Your task to perform on an android device: Clear all items from cart on amazon.com. Image 0: 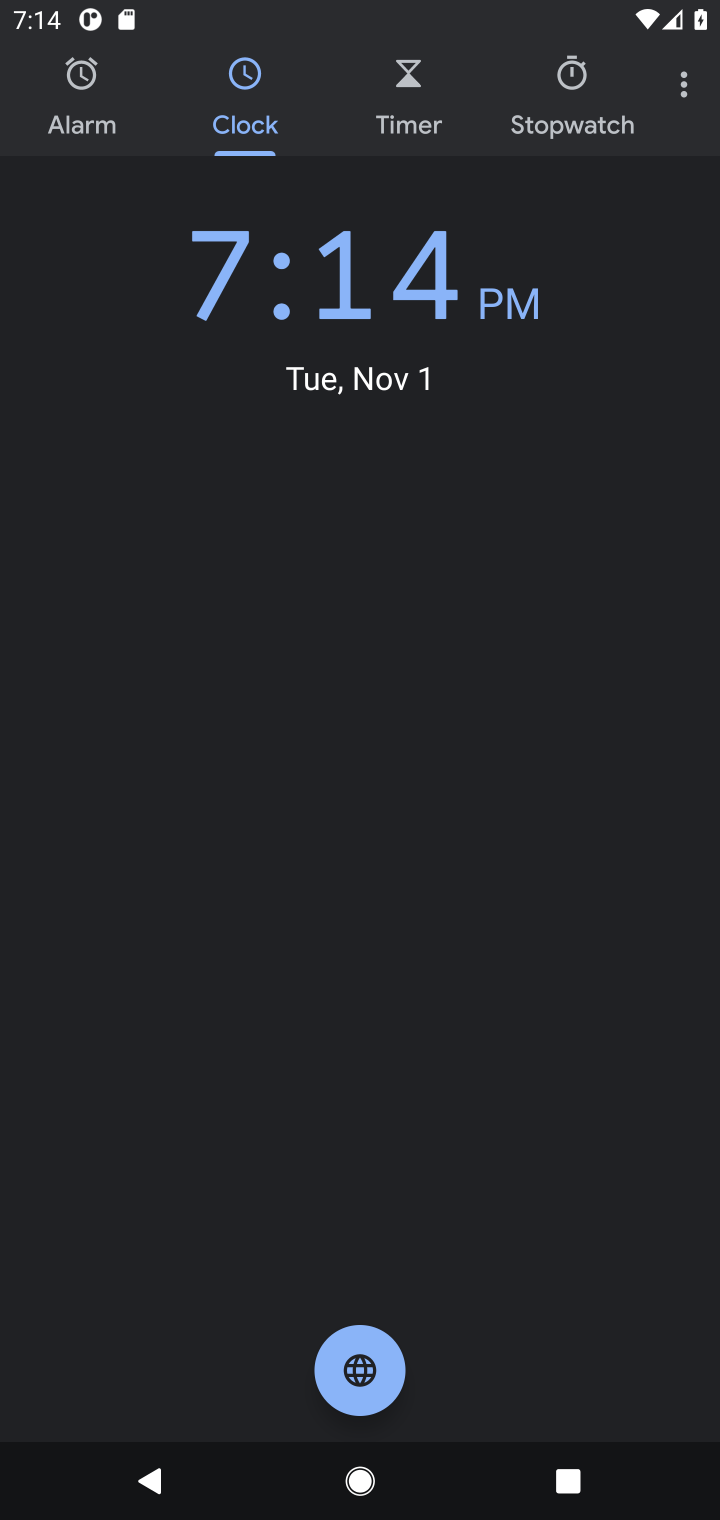
Step 0: press home button
Your task to perform on an android device: Clear all items from cart on amazon.com. Image 1: 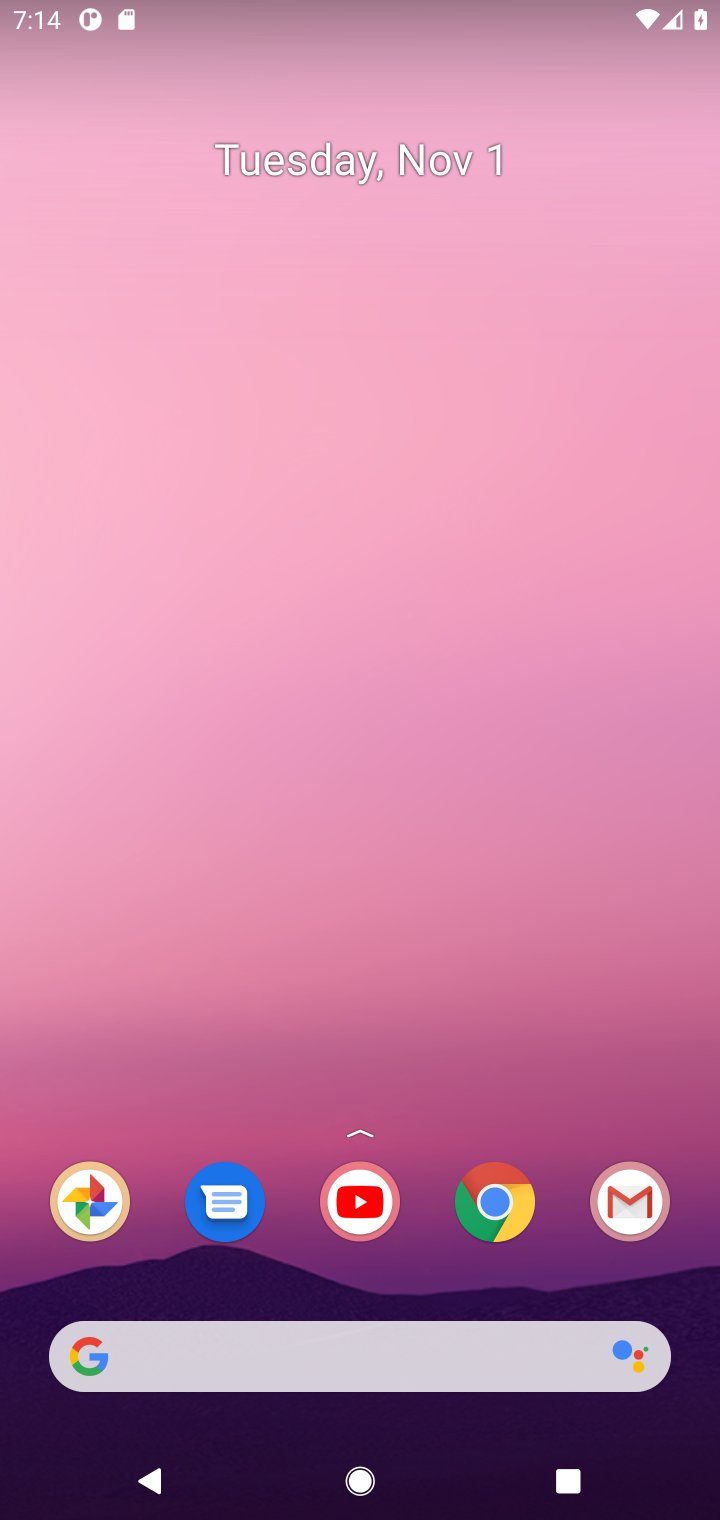
Step 1: drag from (447, 1407) to (532, 91)
Your task to perform on an android device: Clear all items from cart on amazon.com. Image 2: 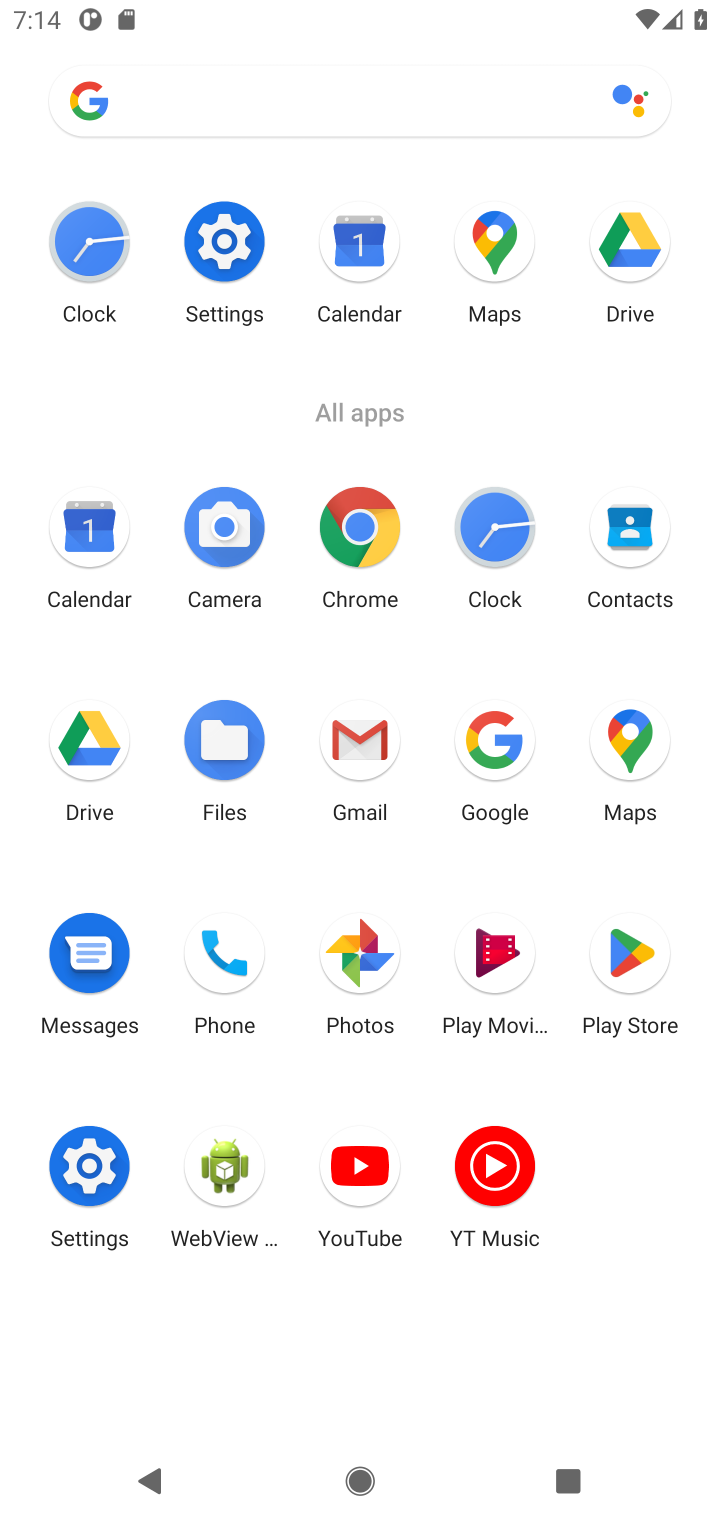
Step 2: click (353, 512)
Your task to perform on an android device: Clear all items from cart on amazon.com. Image 3: 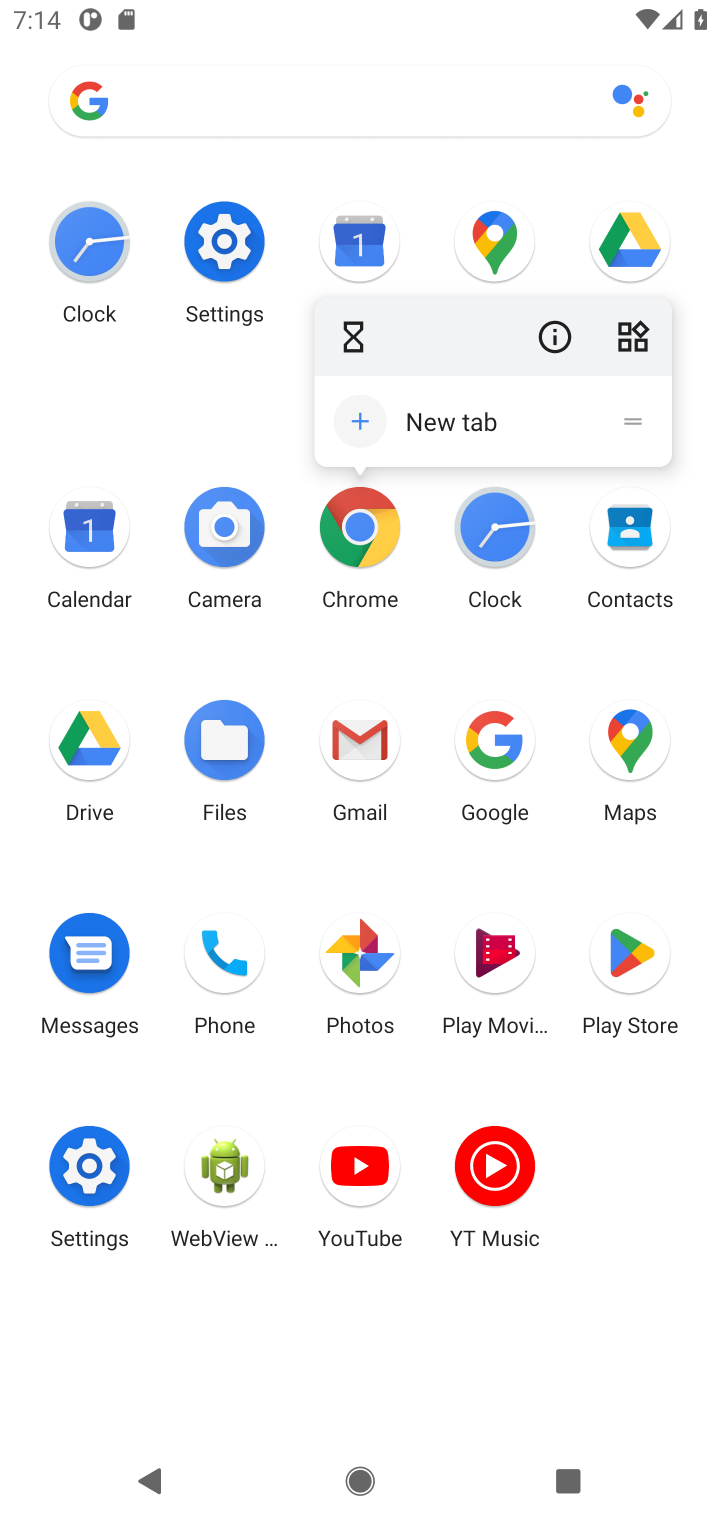
Step 3: click (350, 523)
Your task to perform on an android device: Clear all items from cart on amazon.com. Image 4: 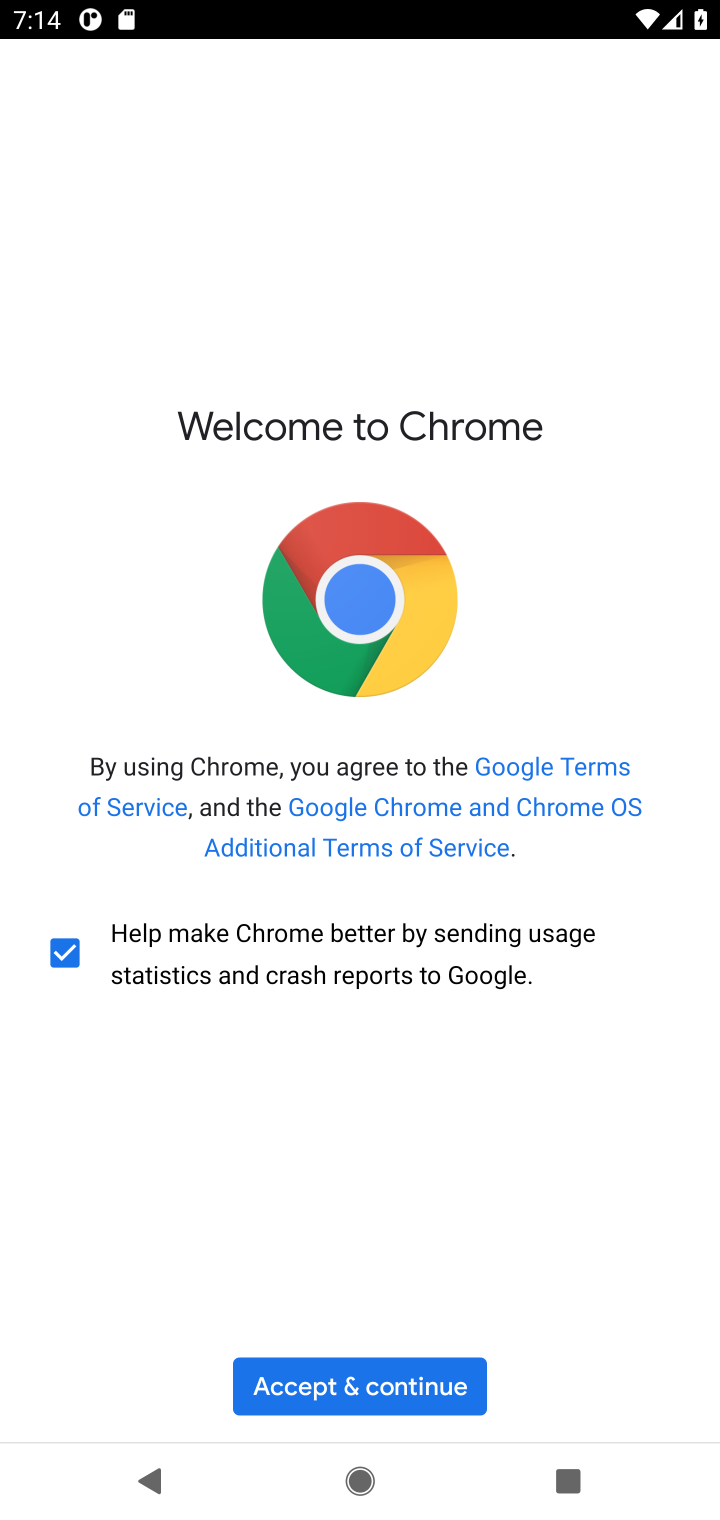
Step 4: click (447, 1392)
Your task to perform on an android device: Clear all items from cart on amazon.com. Image 5: 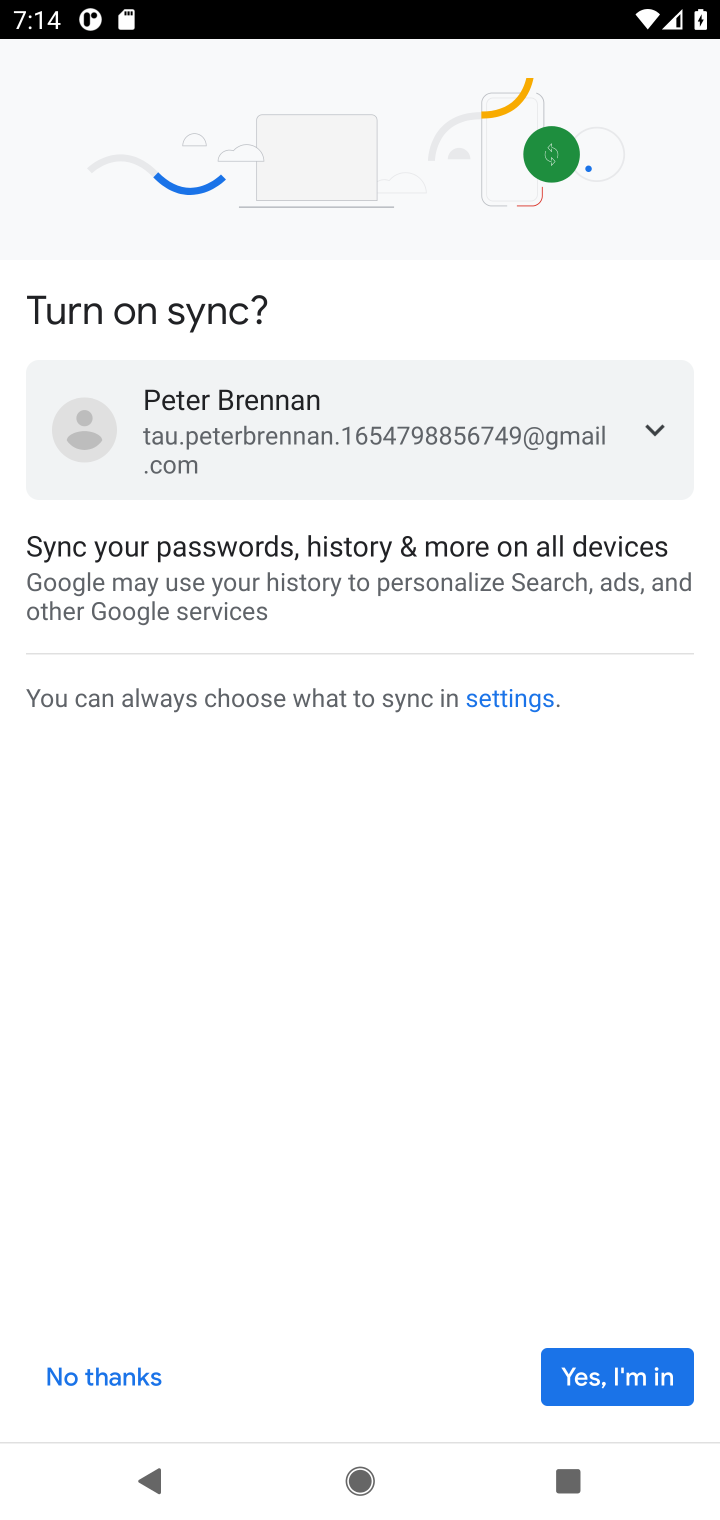
Step 5: click (586, 1373)
Your task to perform on an android device: Clear all items from cart on amazon.com. Image 6: 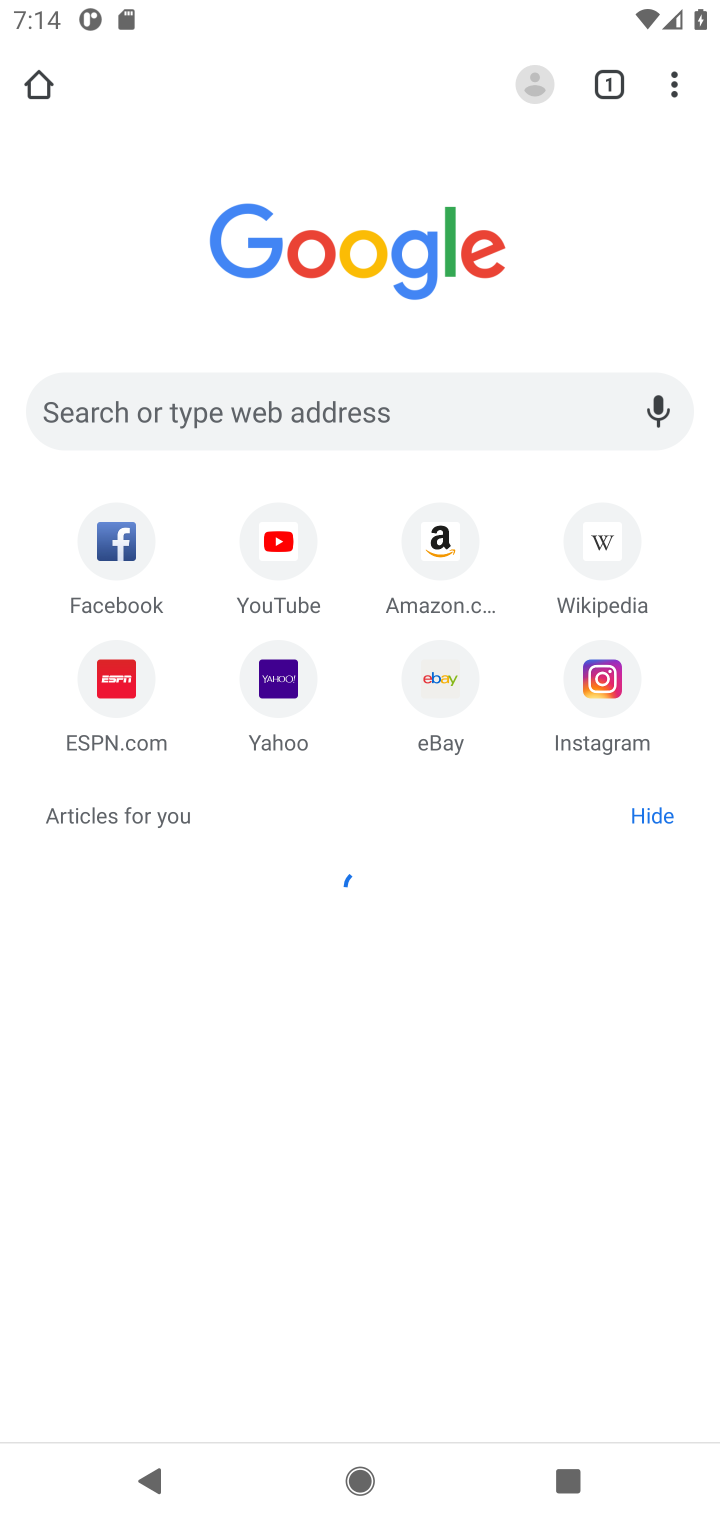
Step 6: click (334, 395)
Your task to perform on an android device: Clear all items from cart on amazon.com. Image 7: 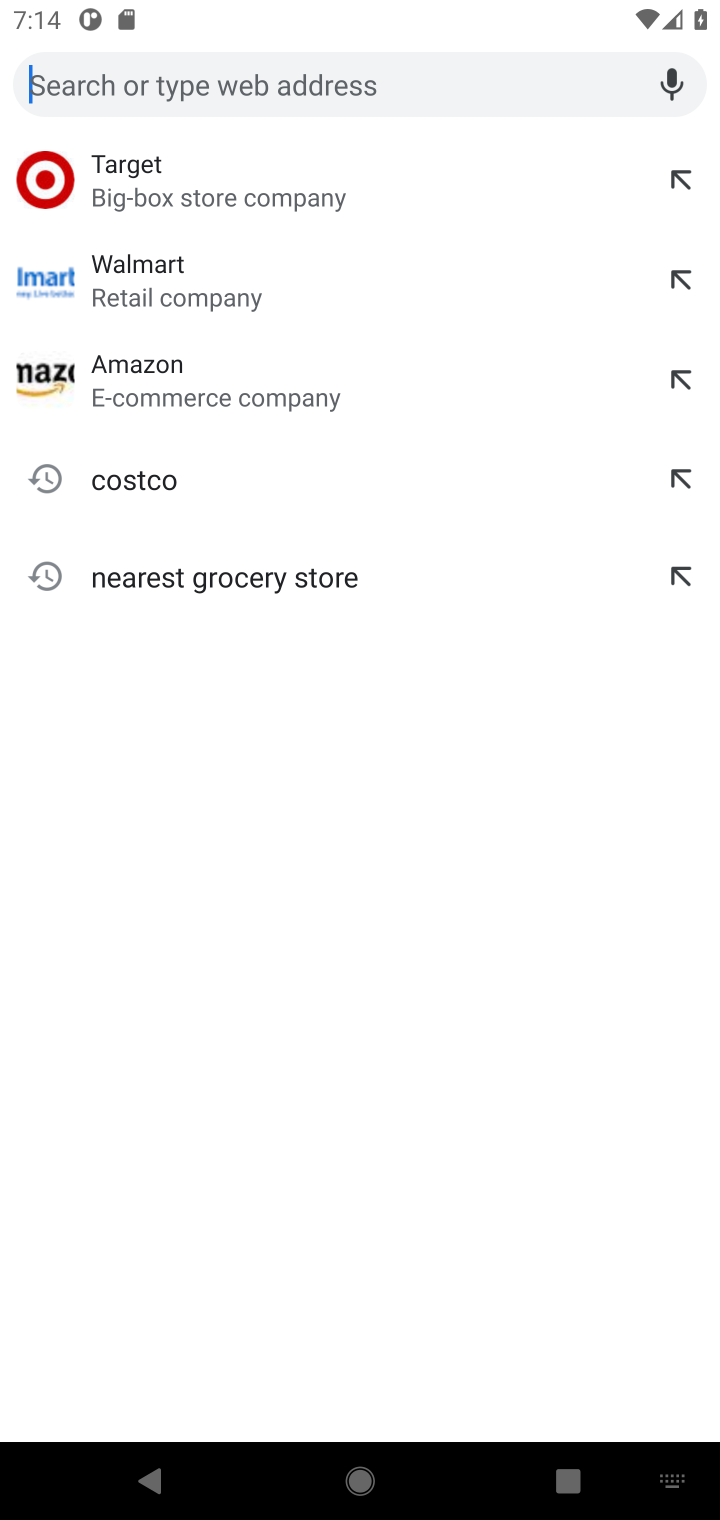
Step 7: type "amazon.com"
Your task to perform on an android device: Clear all items from cart on amazon.com. Image 8: 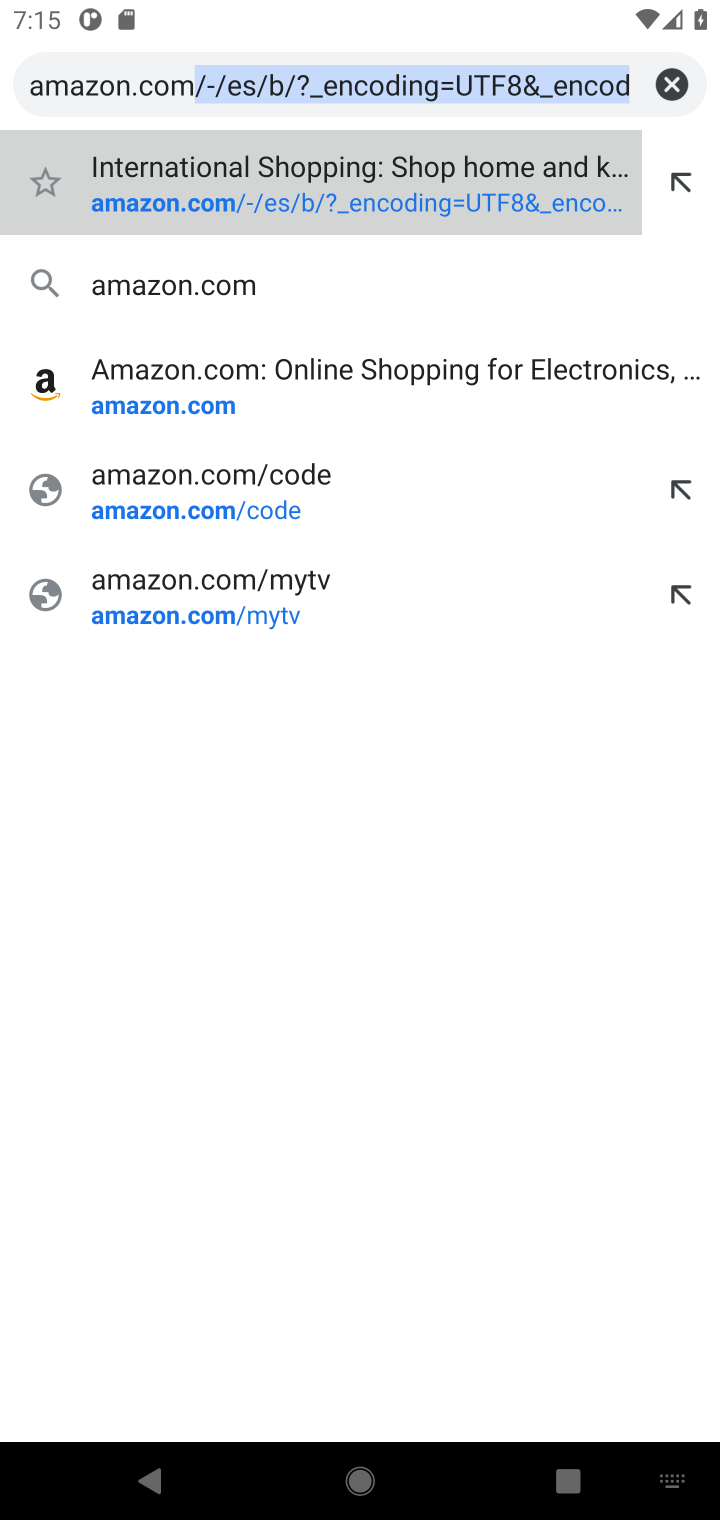
Step 8: click (138, 196)
Your task to perform on an android device: Clear all items from cart on amazon.com. Image 9: 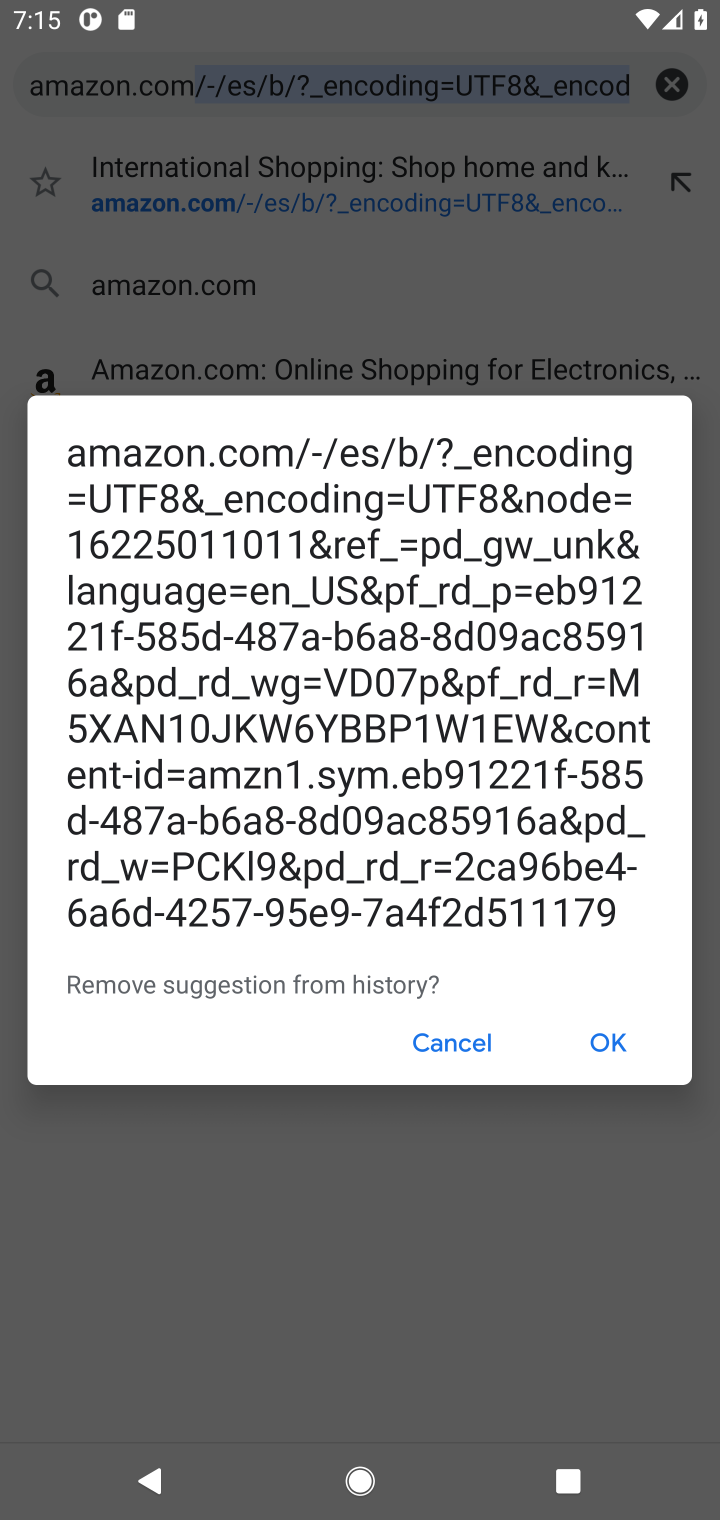
Step 9: click (612, 1044)
Your task to perform on an android device: Clear all items from cart on amazon.com. Image 10: 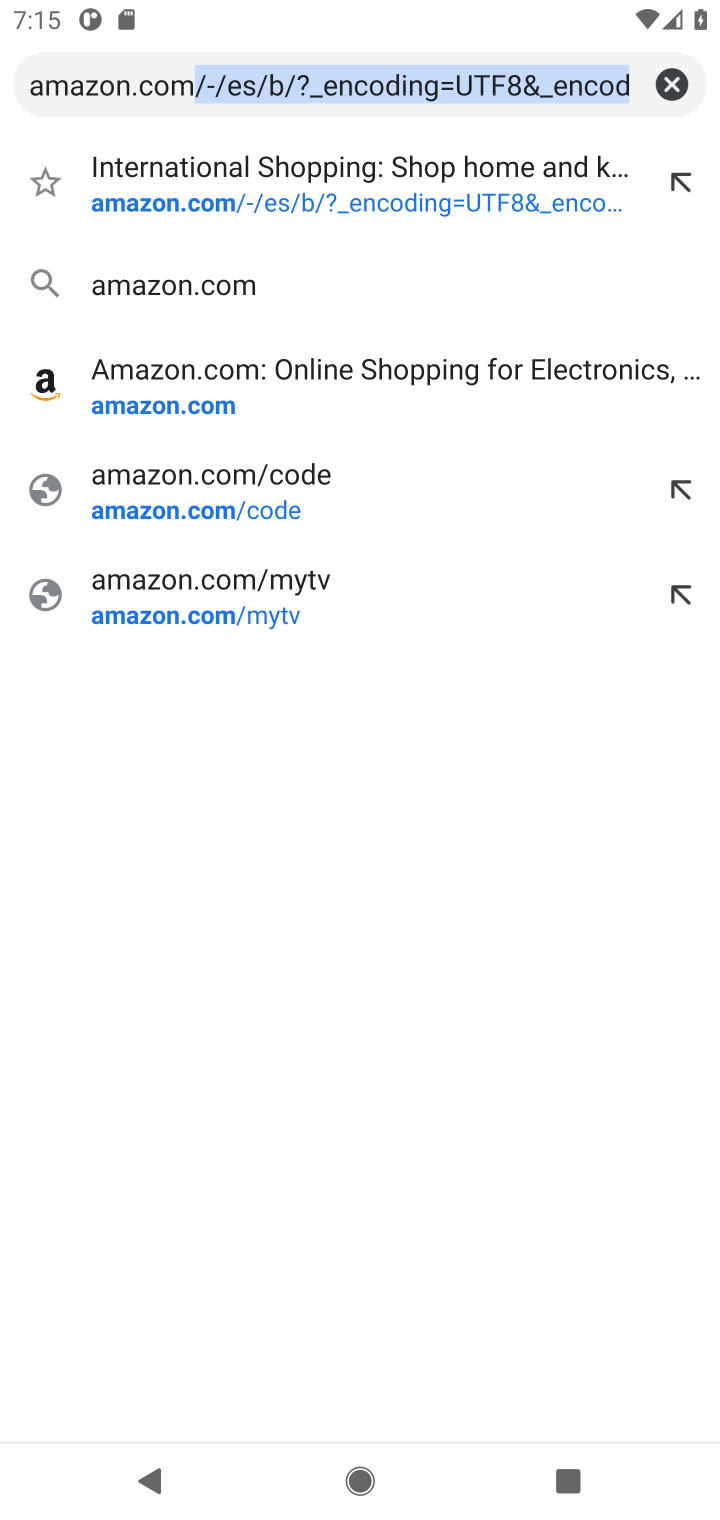
Step 10: click (606, 1209)
Your task to perform on an android device: Clear all items from cart on amazon.com. Image 11: 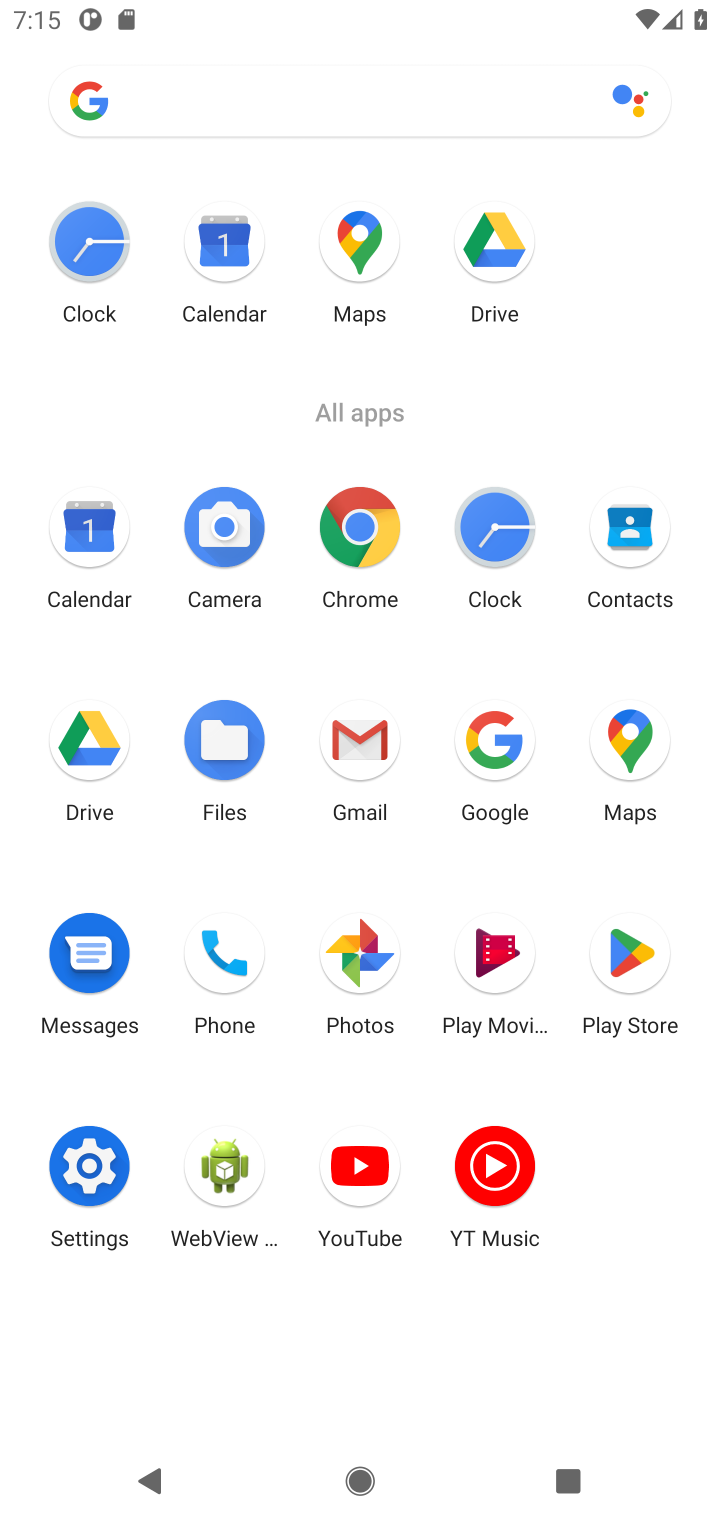
Step 11: click (356, 535)
Your task to perform on an android device: Clear all items from cart on amazon.com. Image 12: 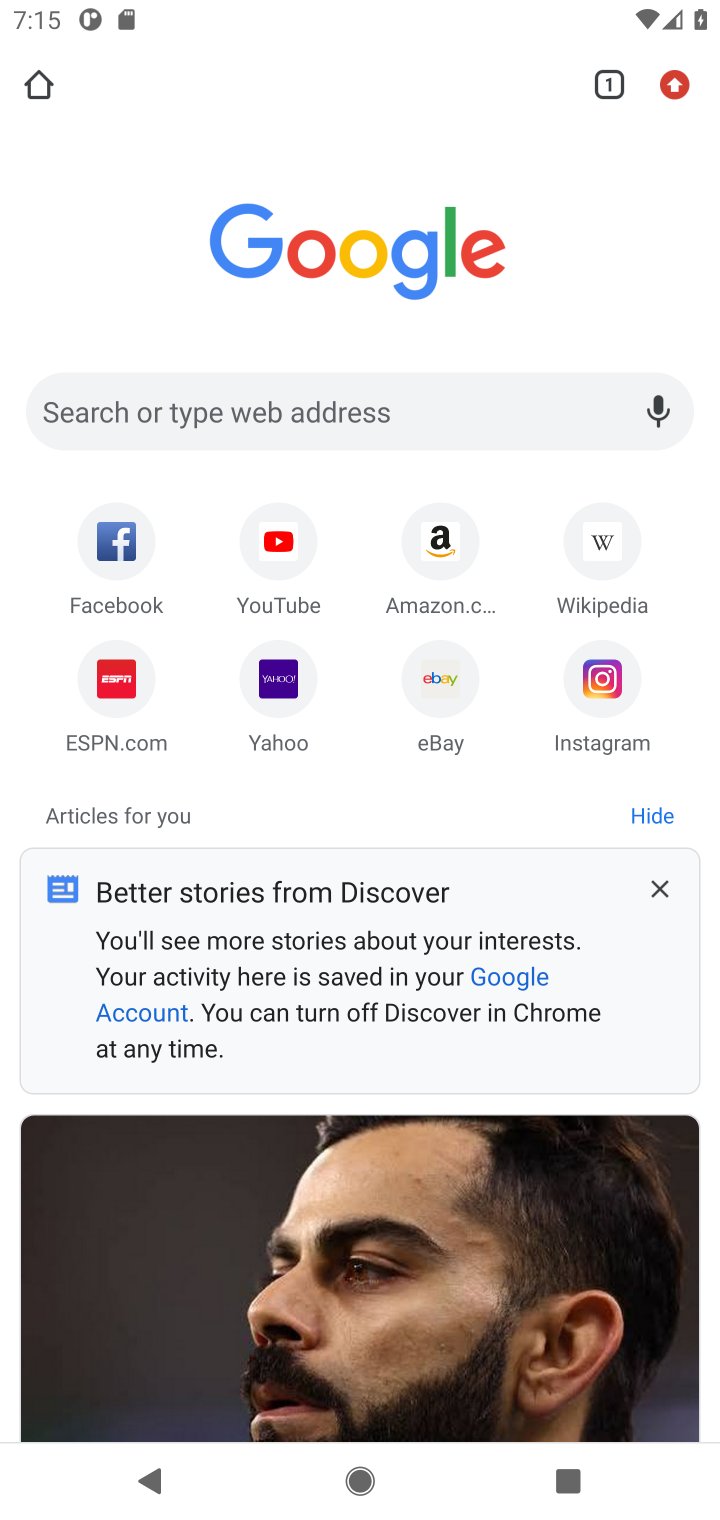
Step 12: click (371, 402)
Your task to perform on an android device: Clear all items from cart on amazon.com. Image 13: 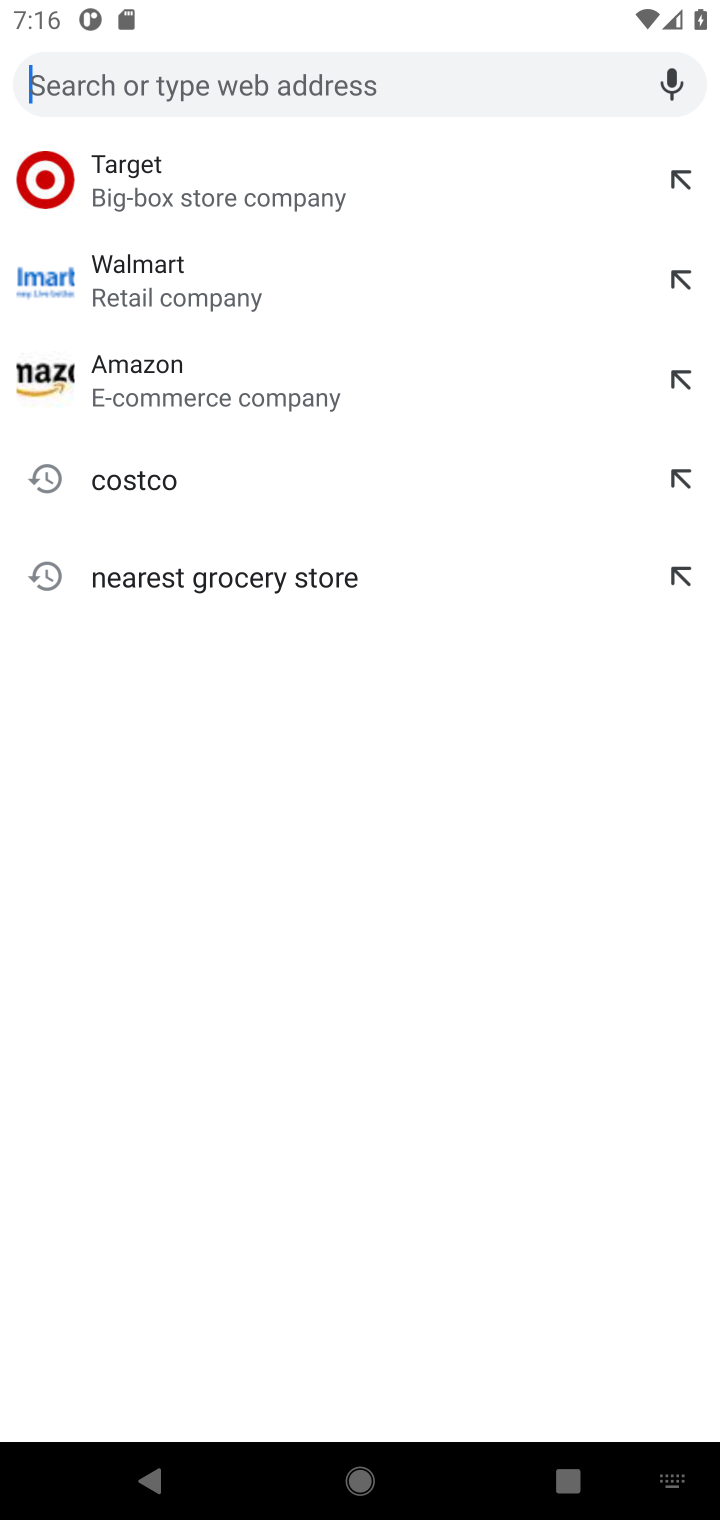
Step 13: type "amazon.com"
Your task to perform on an android device: Clear all items from cart on amazon.com. Image 14: 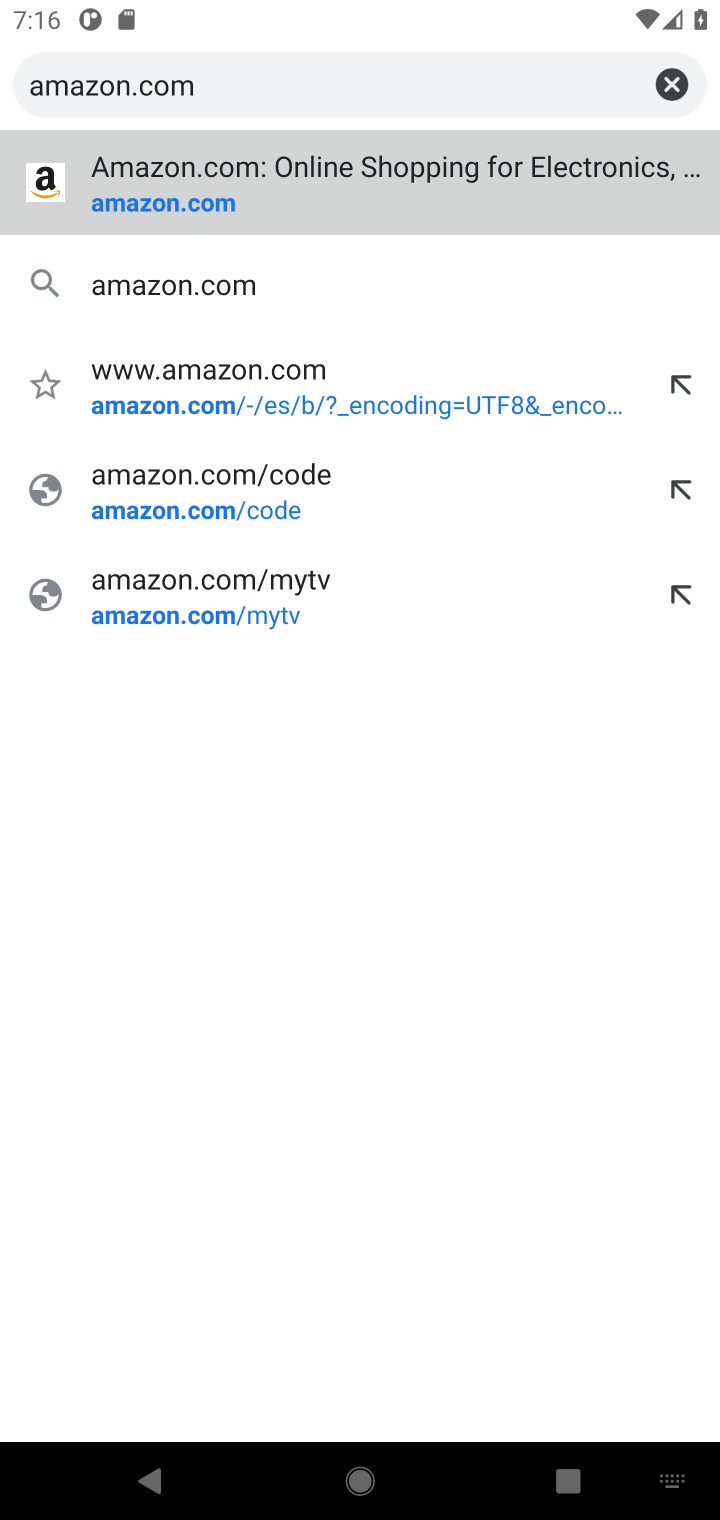
Step 14: click (113, 192)
Your task to perform on an android device: Clear all items from cart on amazon.com. Image 15: 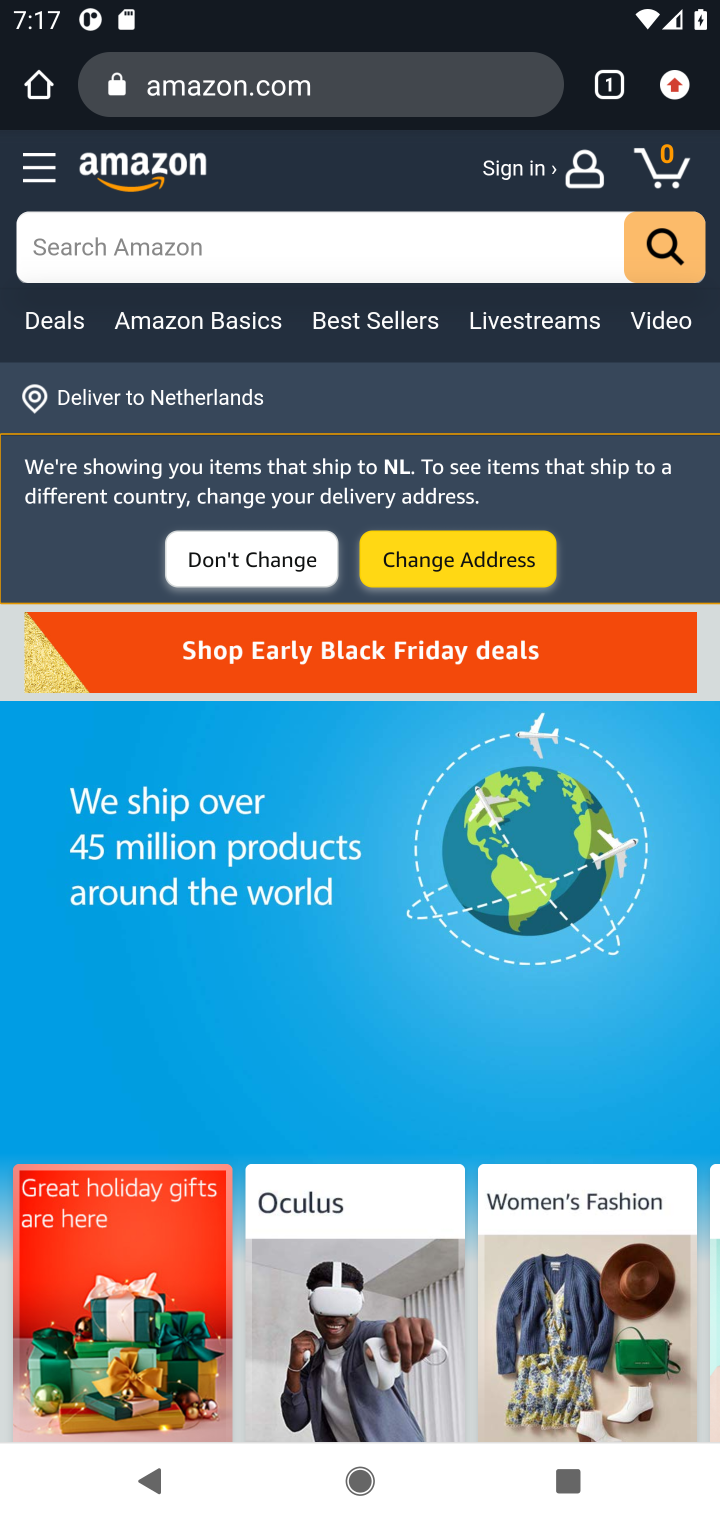
Step 15: click (86, 229)
Your task to perform on an android device: Clear all items from cart on amazon.com. Image 16: 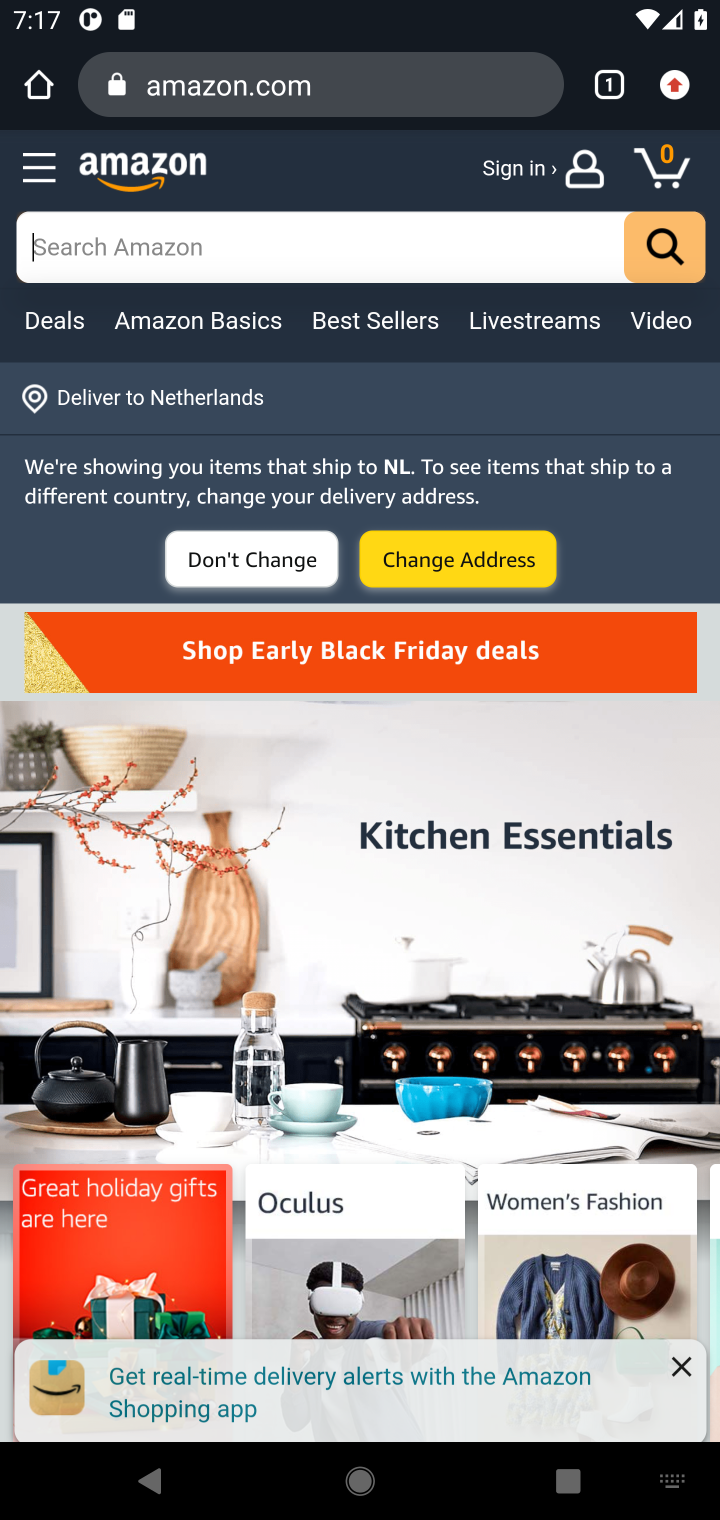
Step 16: click (677, 161)
Your task to perform on an android device: Clear all items from cart on amazon.com. Image 17: 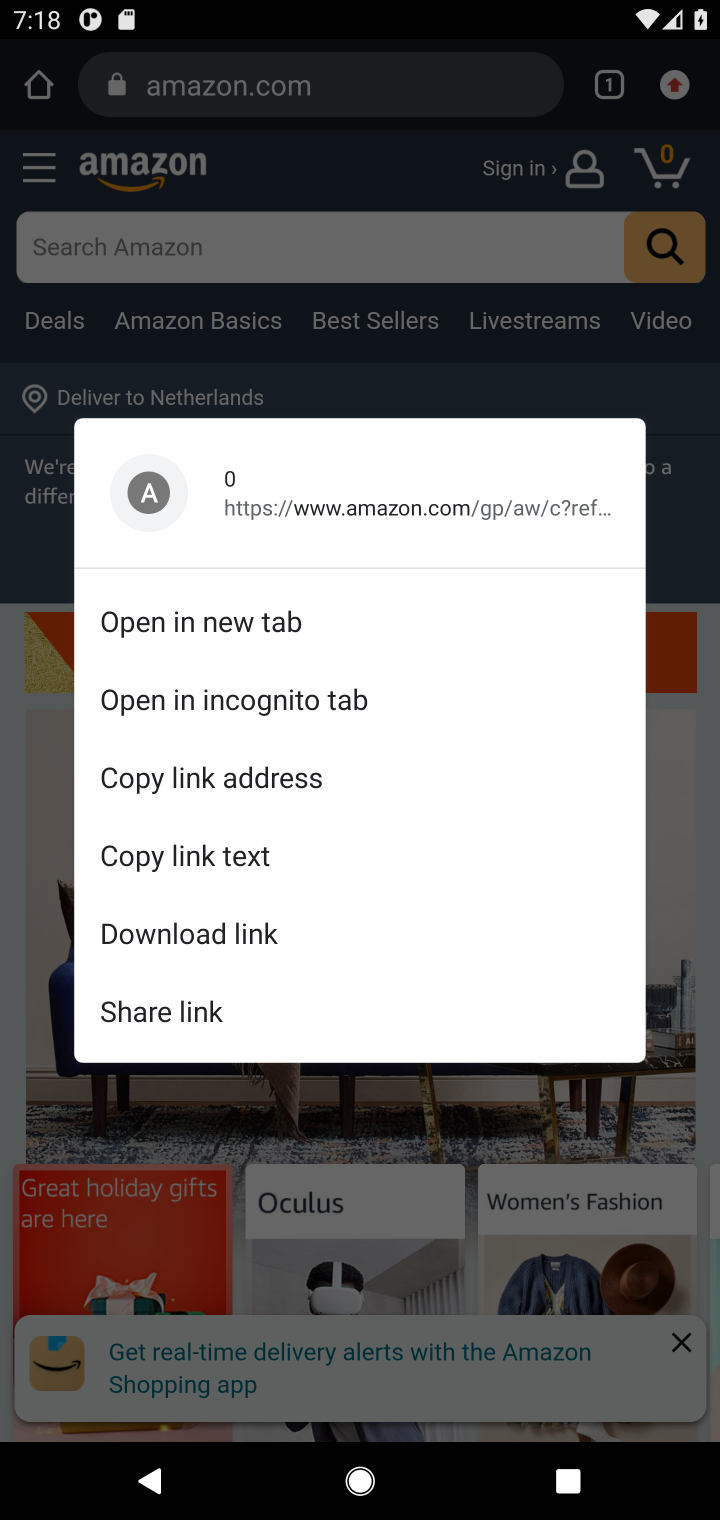
Step 17: click (693, 330)
Your task to perform on an android device: Clear all items from cart on amazon.com. Image 18: 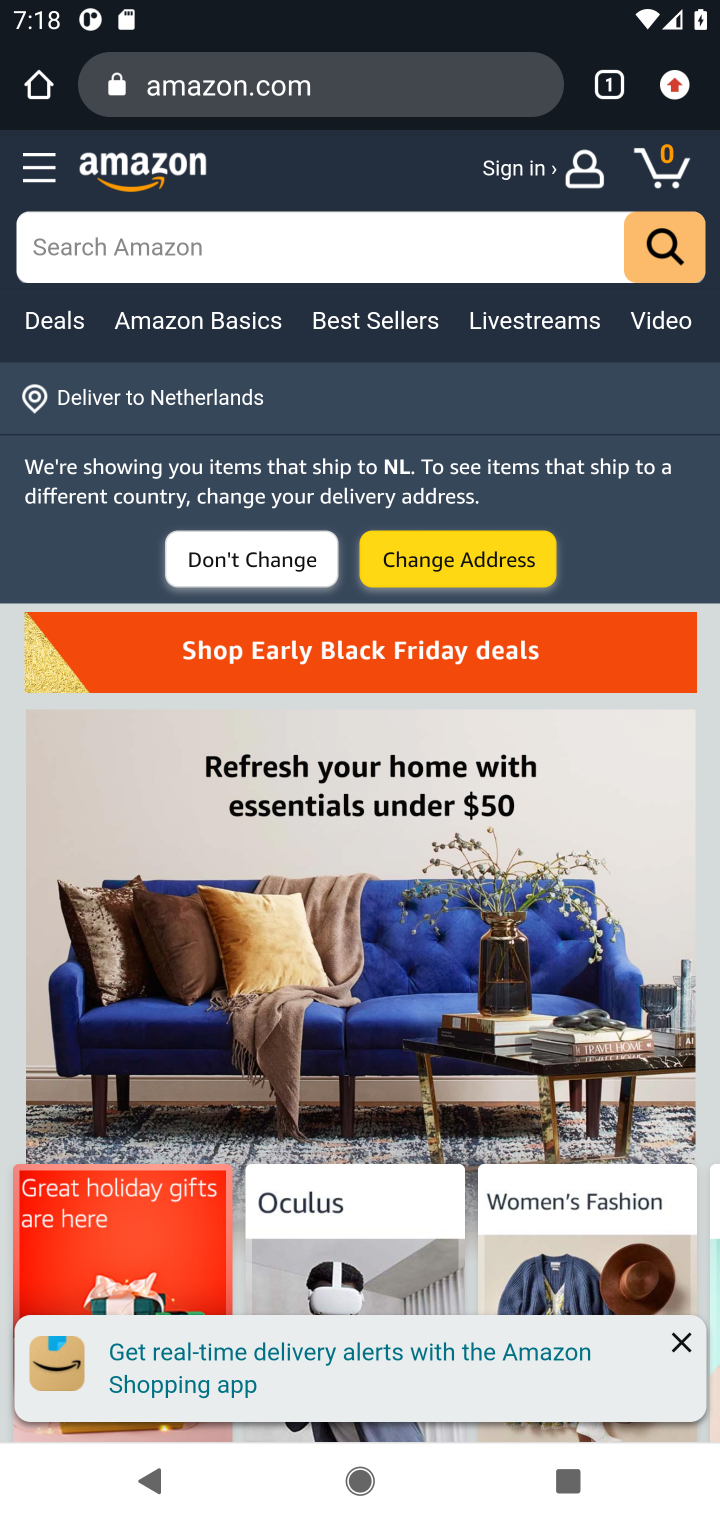
Step 18: task complete